Your task to perform on an android device: Open Youtube and go to "Your channel" Image 0: 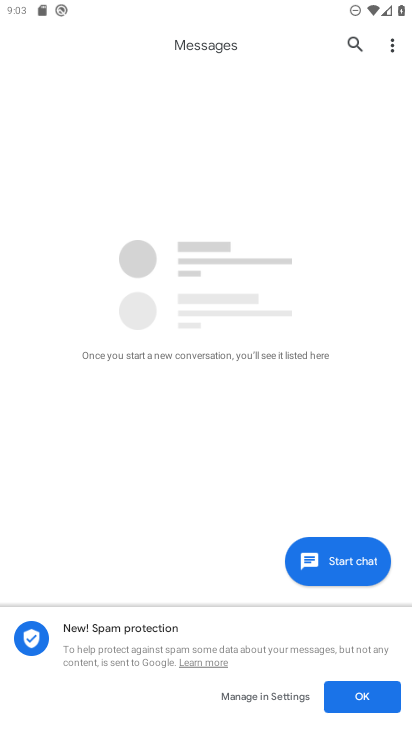
Step 0: press home button
Your task to perform on an android device: Open Youtube and go to "Your channel" Image 1: 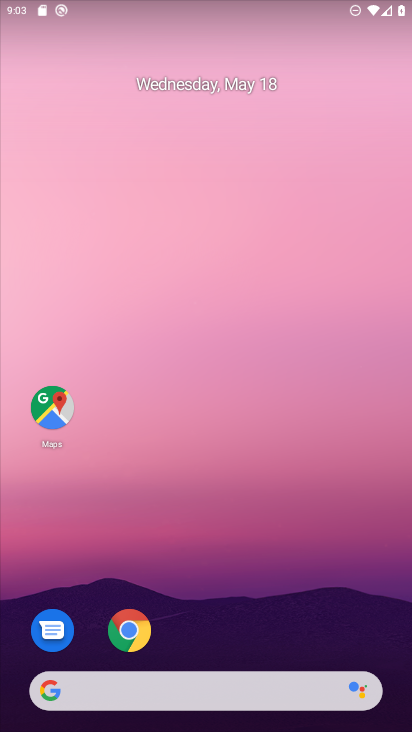
Step 1: drag from (227, 661) to (197, 49)
Your task to perform on an android device: Open Youtube and go to "Your channel" Image 2: 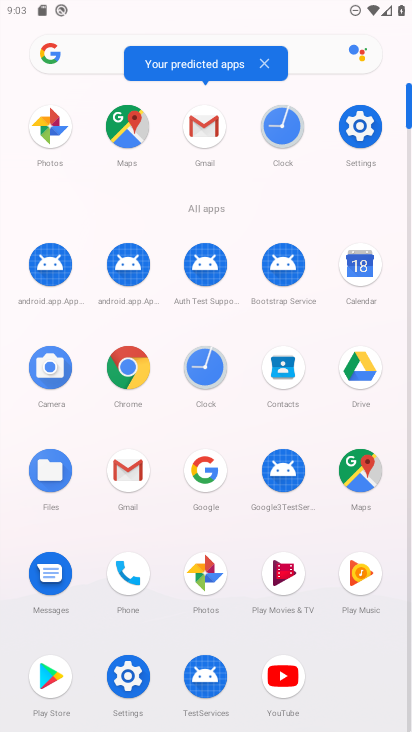
Step 2: click (280, 700)
Your task to perform on an android device: Open Youtube and go to "Your channel" Image 3: 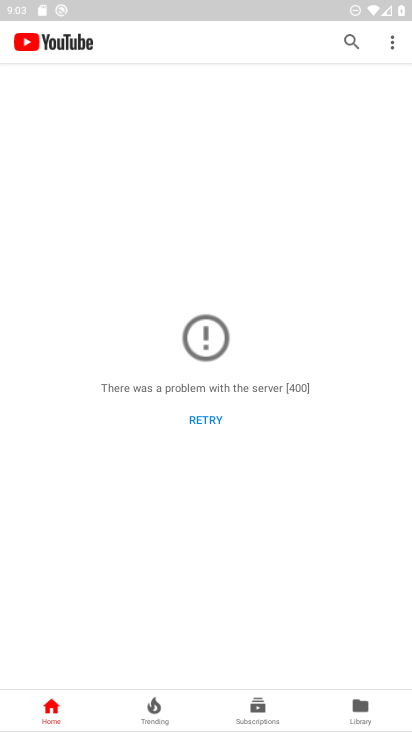
Step 3: click (199, 410)
Your task to perform on an android device: Open Youtube and go to "Your channel" Image 4: 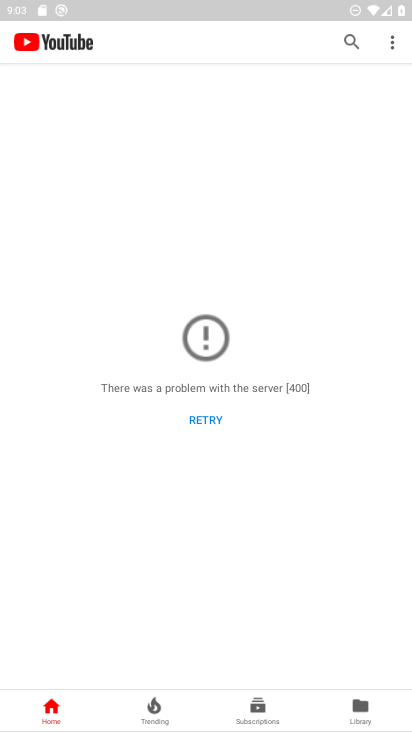
Step 4: click (203, 422)
Your task to perform on an android device: Open Youtube and go to "Your channel" Image 5: 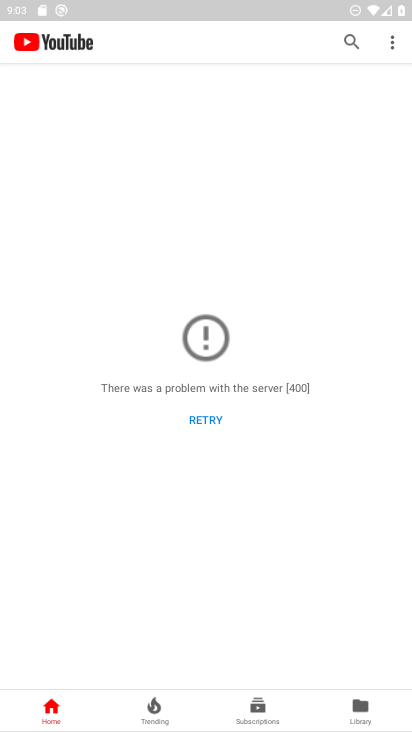
Step 5: click (394, 35)
Your task to perform on an android device: Open Youtube and go to "Your channel" Image 6: 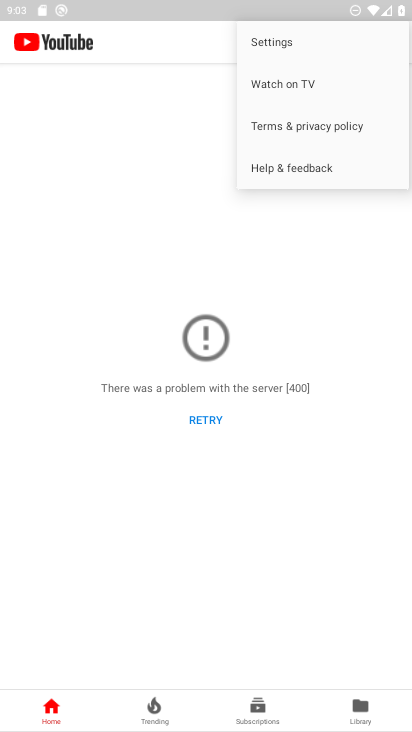
Step 6: click (280, 48)
Your task to perform on an android device: Open Youtube and go to "Your channel" Image 7: 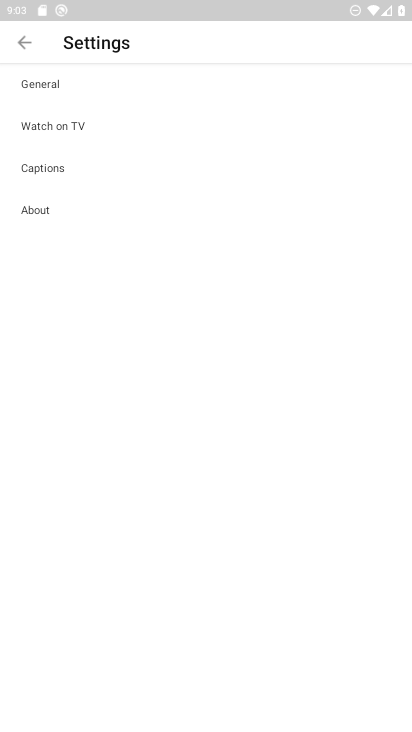
Step 7: task complete